Your task to perform on an android device: turn on airplane mode Image 0: 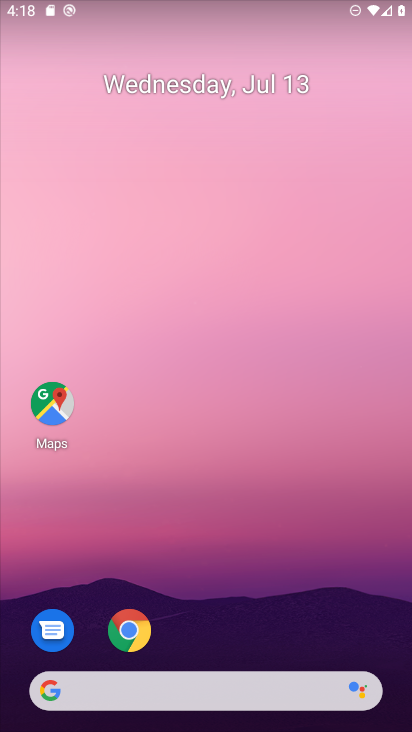
Step 0: drag from (221, 389) to (218, 164)
Your task to perform on an android device: turn on airplane mode Image 1: 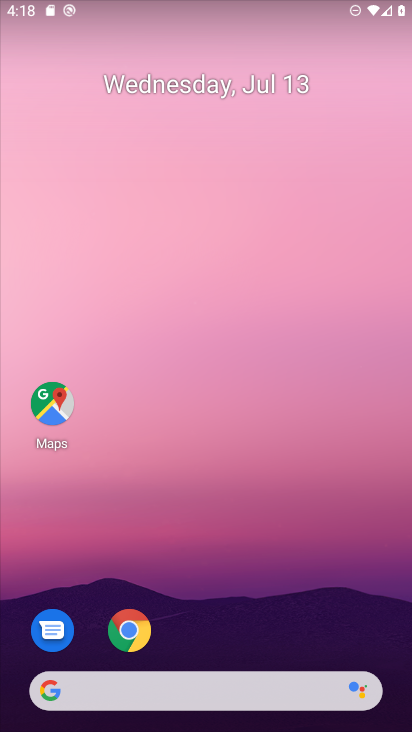
Step 1: drag from (206, 599) to (262, 66)
Your task to perform on an android device: turn on airplane mode Image 2: 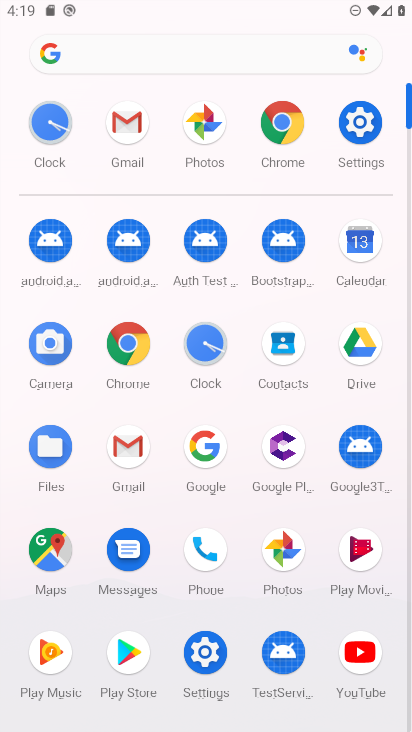
Step 2: click (356, 128)
Your task to perform on an android device: turn on airplane mode Image 3: 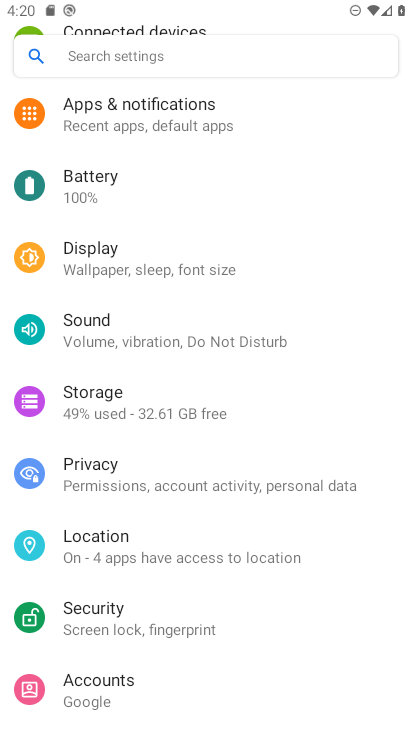
Step 3: drag from (254, 368) to (167, 731)
Your task to perform on an android device: turn on airplane mode Image 4: 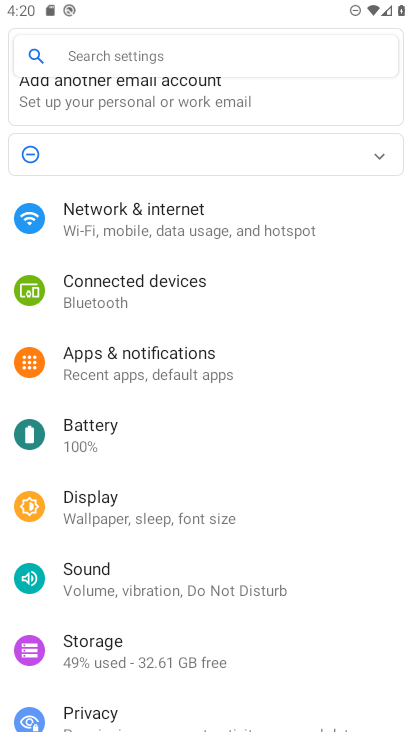
Step 4: drag from (215, 355) to (189, 724)
Your task to perform on an android device: turn on airplane mode Image 5: 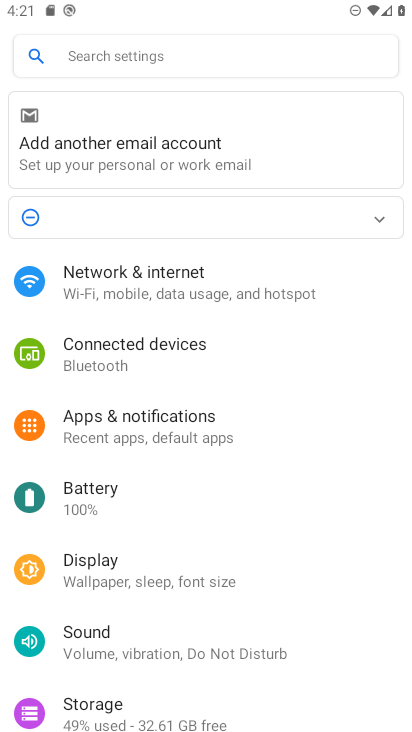
Step 5: click (383, 217)
Your task to perform on an android device: turn on airplane mode Image 6: 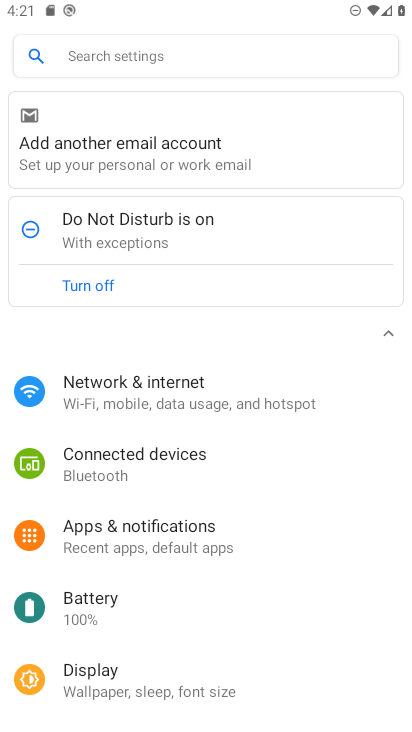
Step 6: task complete